Your task to perform on an android device: empty trash in google photos Image 0: 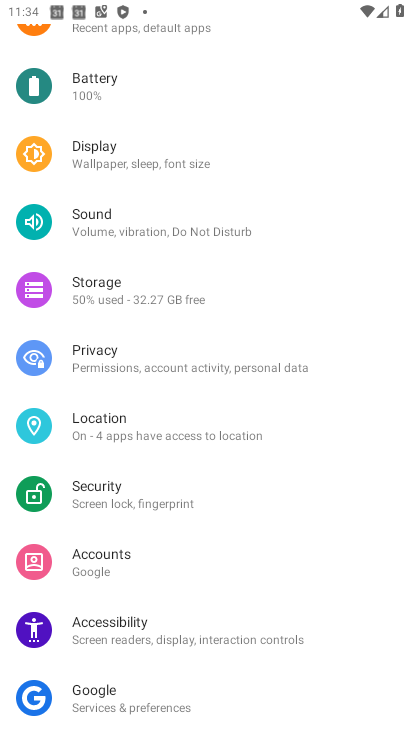
Step 0: press home button
Your task to perform on an android device: empty trash in google photos Image 1: 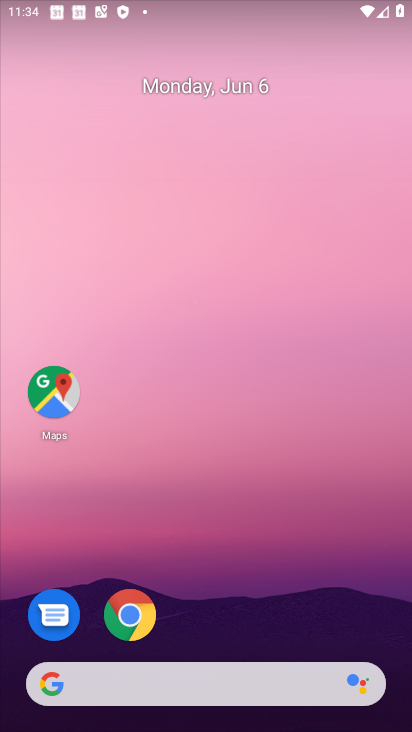
Step 1: drag from (256, 597) to (238, 24)
Your task to perform on an android device: empty trash in google photos Image 2: 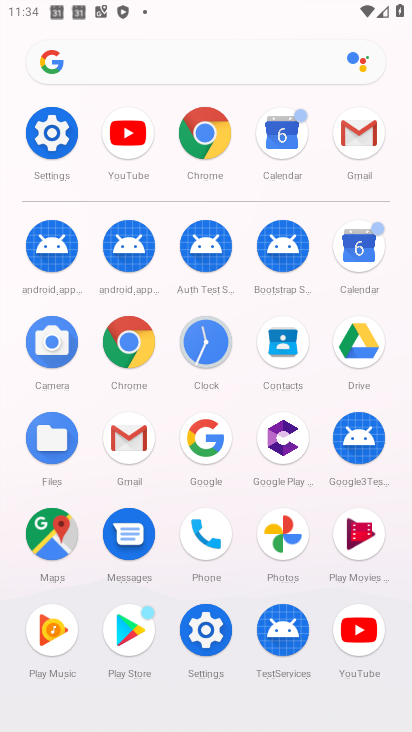
Step 2: click (264, 545)
Your task to perform on an android device: empty trash in google photos Image 3: 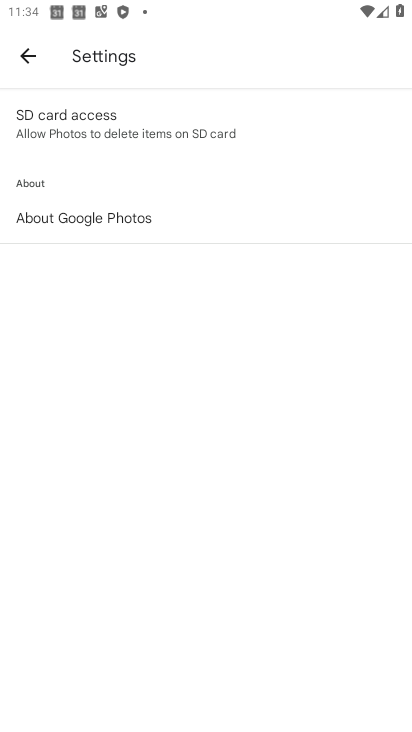
Step 3: task complete